Your task to perform on an android device: See recent photos Image 0: 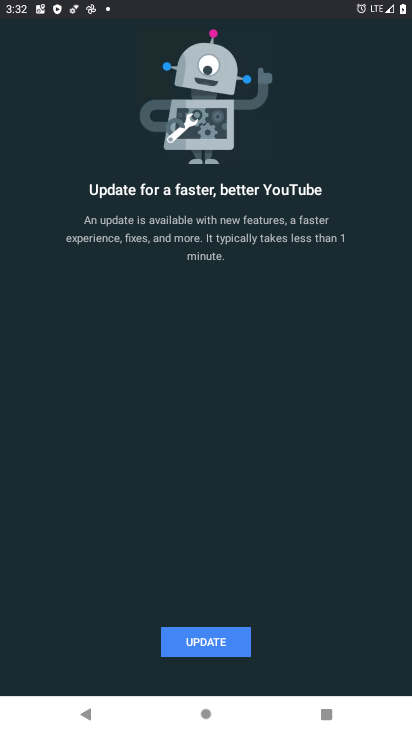
Step 0: press home button
Your task to perform on an android device: See recent photos Image 1: 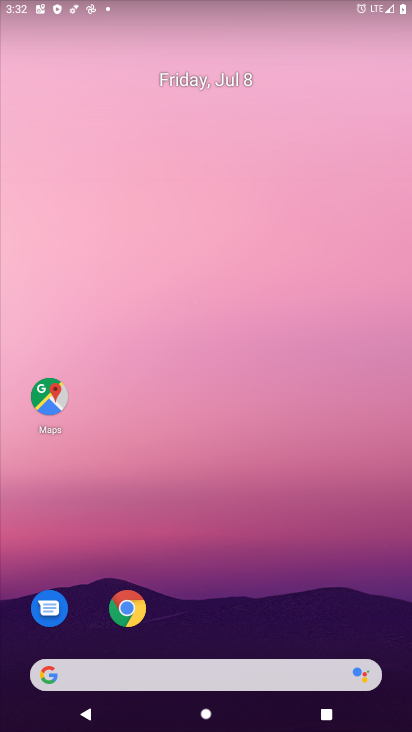
Step 1: drag from (278, 666) to (261, 79)
Your task to perform on an android device: See recent photos Image 2: 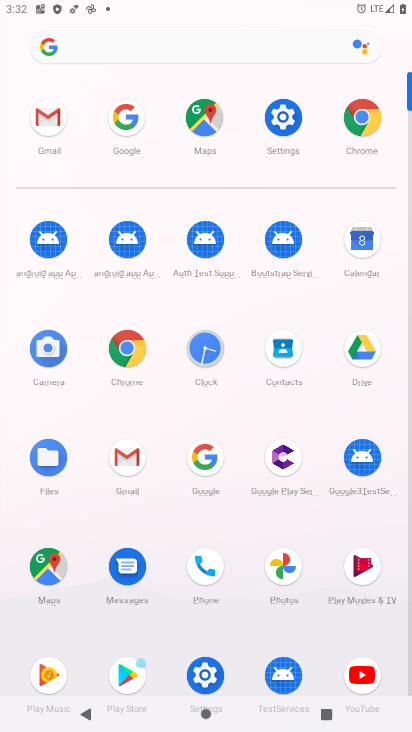
Step 2: click (280, 576)
Your task to perform on an android device: See recent photos Image 3: 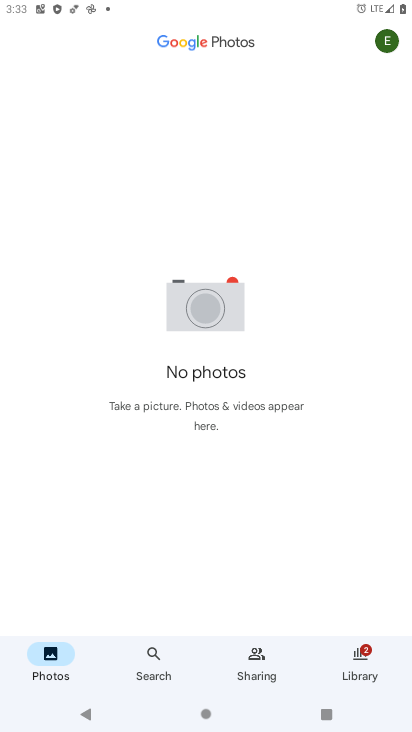
Step 3: task complete